Your task to perform on an android device: add a contact in the contacts app Image 0: 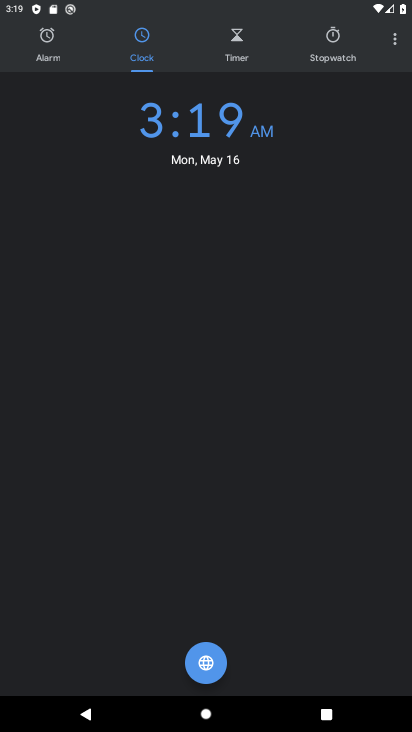
Step 0: press back button
Your task to perform on an android device: add a contact in the contacts app Image 1: 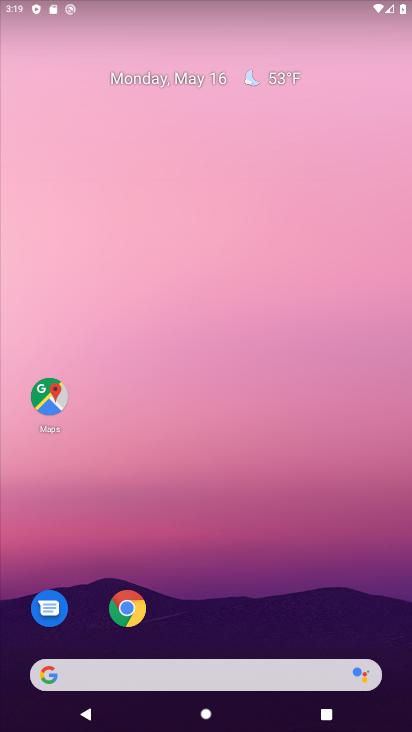
Step 1: drag from (247, 612) to (226, 91)
Your task to perform on an android device: add a contact in the contacts app Image 2: 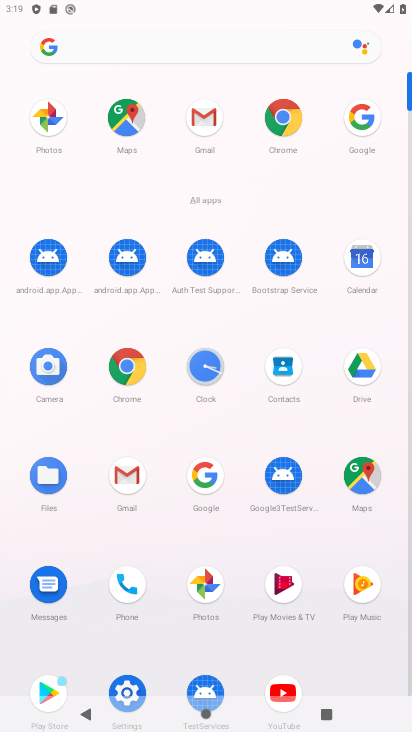
Step 2: click (283, 365)
Your task to perform on an android device: add a contact in the contacts app Image 3: 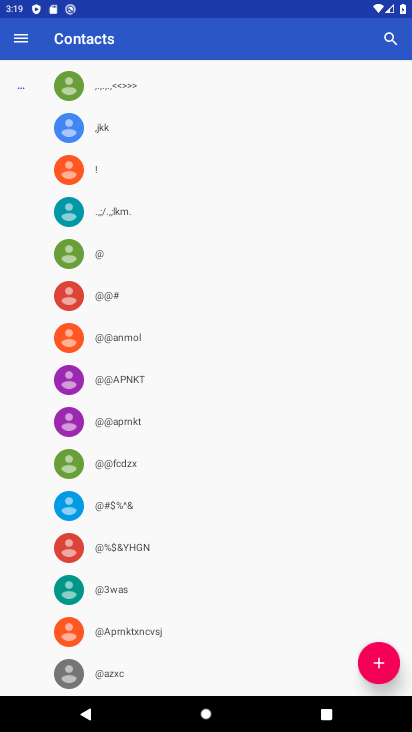
Step 3: click (380, 662)
Your task to perform on an android device: add a contact in the contacts app Image 4: 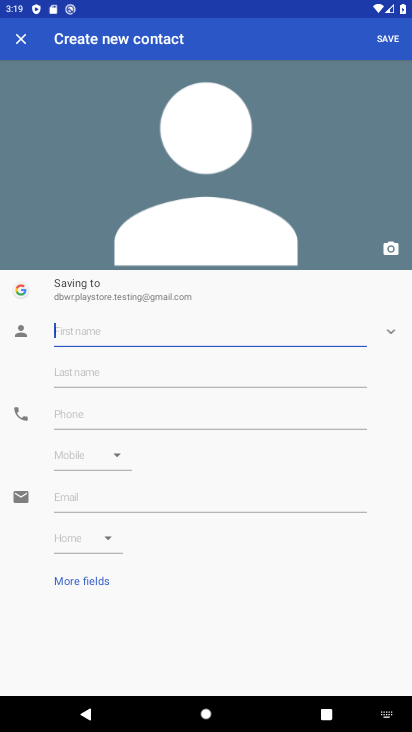
Step 4: click (160, 332)
Your task to perform on an android device: add a contact in the contacts app Image 5: 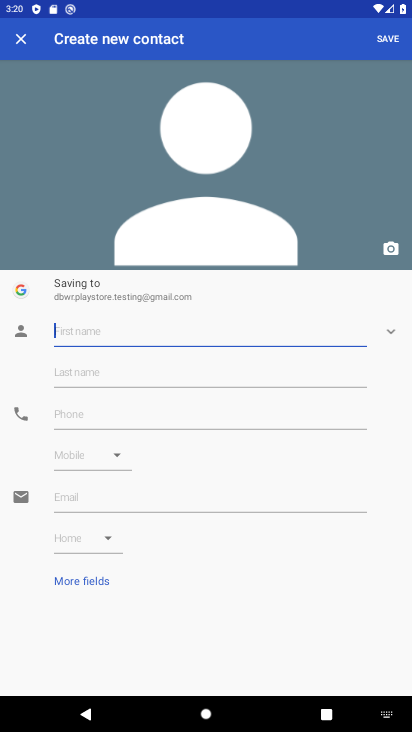
Step 5: type "Buldhana"
Your task to perform on an android device: add a contact in the contacts app Image 6: 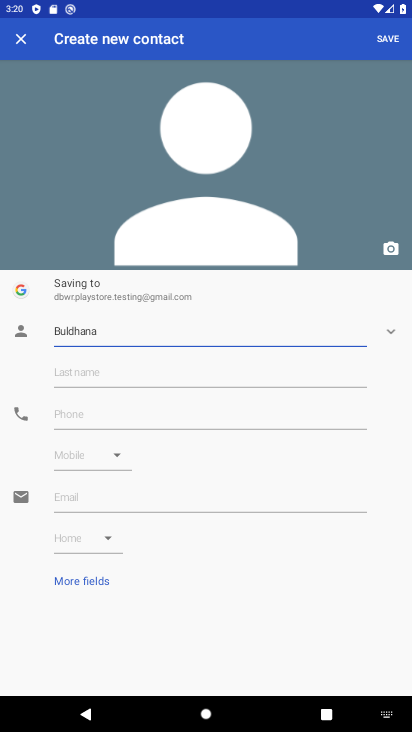
Step 6: click (231, 379)
Your task to perform on an android device: add a contact in the contacts app Image 7: 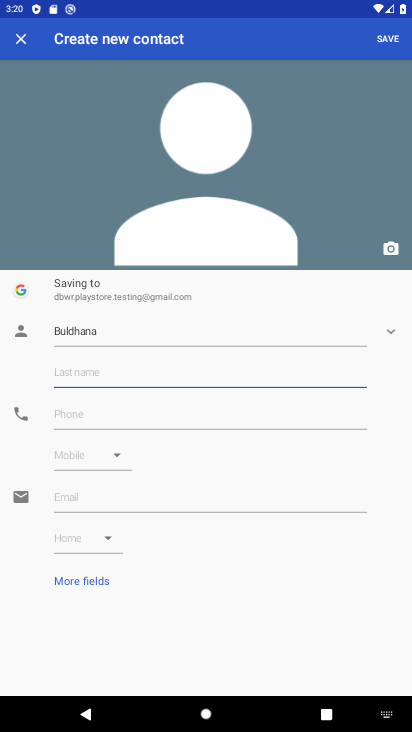
Step 7: type "Bundela"
Your task to perform on an android device: add a contact in the contacts app Image 8: 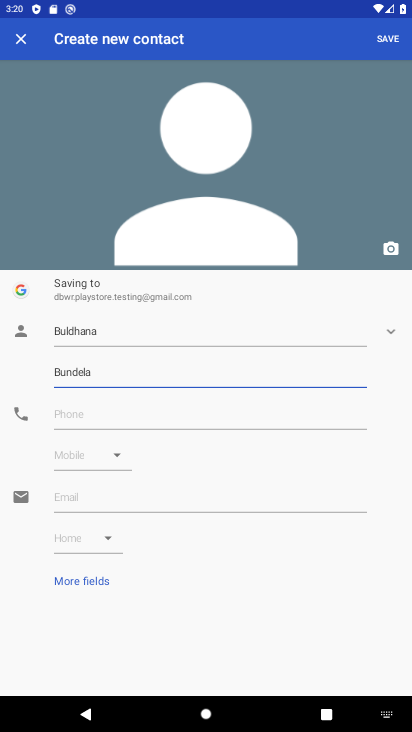
Step 8: click (91, 417)
Your task to perform on an android device: add a contact in the contacts app Image 9: 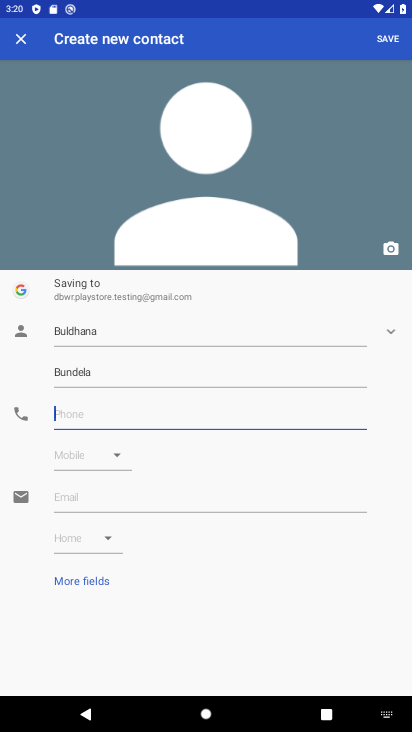
Step 9: type "099775534123"
Your task to perform on an android device: add a contact in the contacts app Image 10: 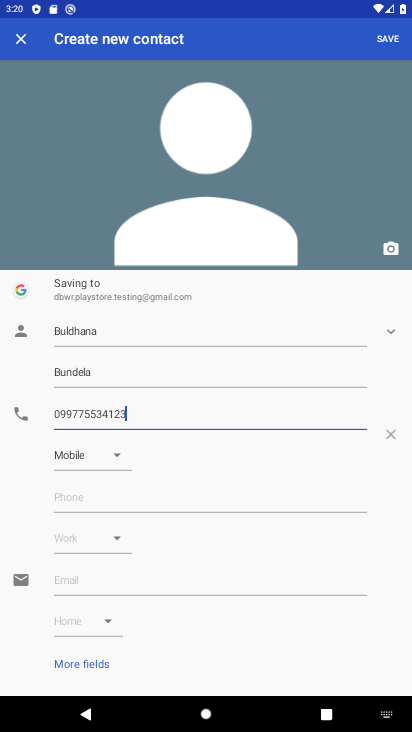
Step 10: click (396, 43)
Your task to perform on an android device: add a contact in the contacts app Image 11: 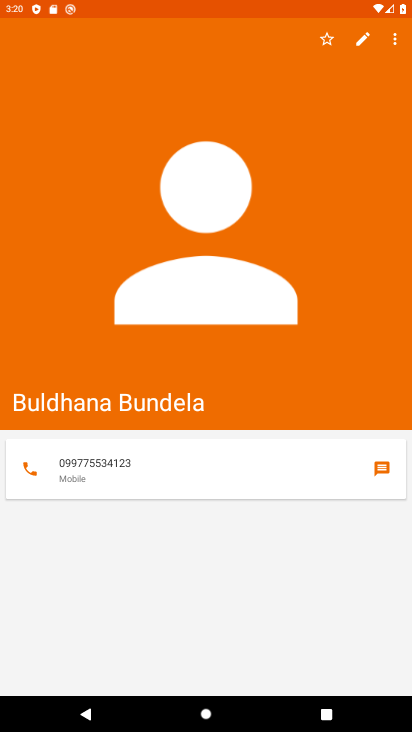
Step 11: task complete